Your task to perform on an android device: Open Google Chrome and open the bookmarks view Image 0: 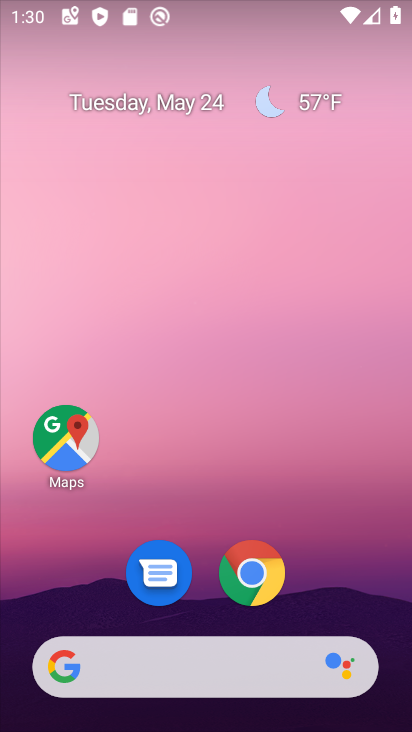
Step 0: click (265, 588)
Your task to perform on an android device: Open Google Chrome and open the bookmarks view Image 1: 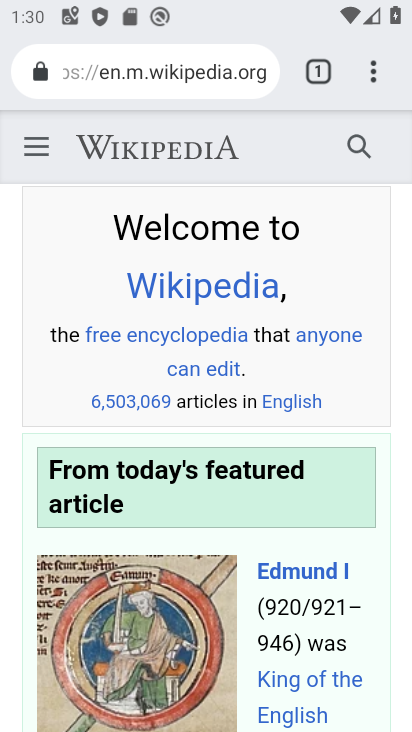
Step 1: click (376, 72)
Your task to perform on an android device: Open Google Chrome and open the bookmarks view Image 2: 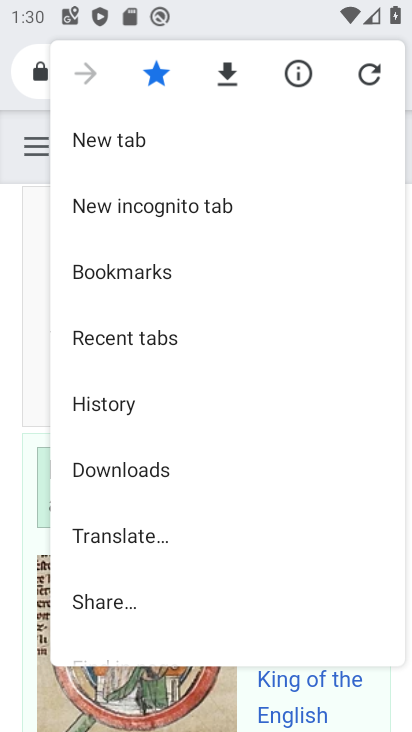
Step 2: click (183, 270)
Your task to perform on an android device: Open Google Chrome and open the bookmarks view Image 3: 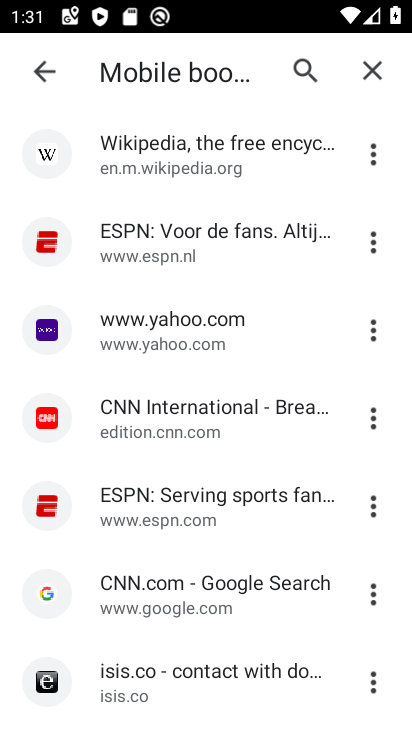
Step 3: task complete